Your task to perform on an android device: Open Google Maps Image 0: 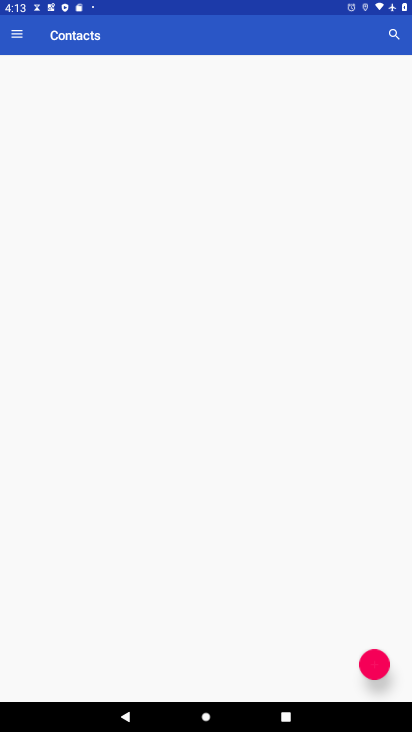
Step 0: press back button
Your task to perform on an android device: Open Google Maps Image 1: 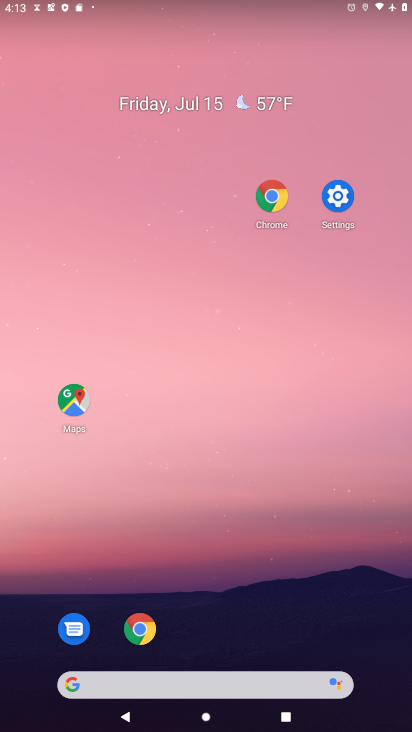
Step 1: press home button
Your task to perform on an android device: Open Google Maps Image 2: 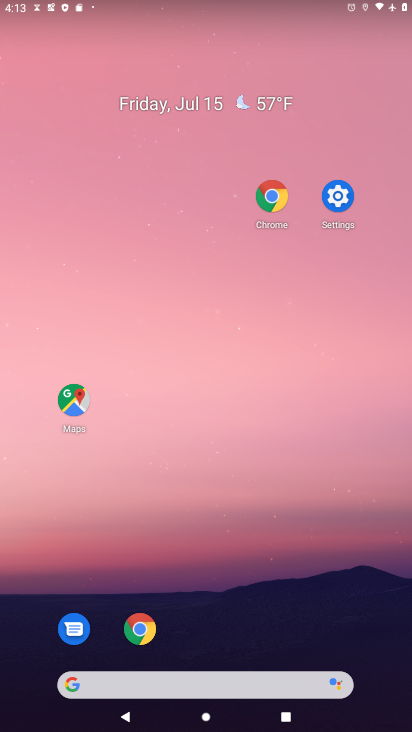
Step 2: drag from (153, 580) to (93, 126)
Your task to perform on an android device: Open Google Maps Image 3: 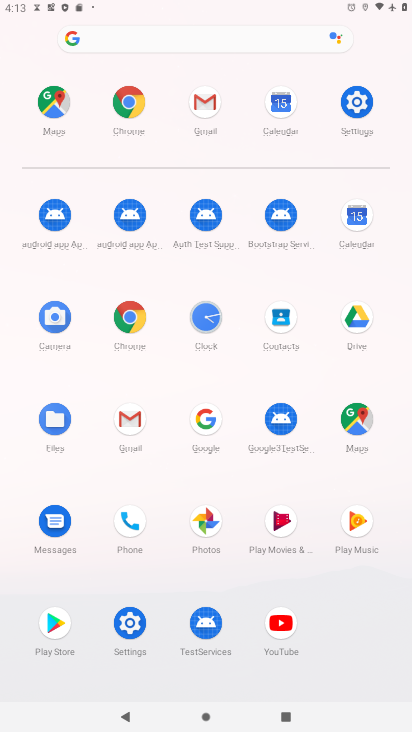
Step 3: click (342, 421)
Your task to perform on an android device: Open Google Maps Image 4: 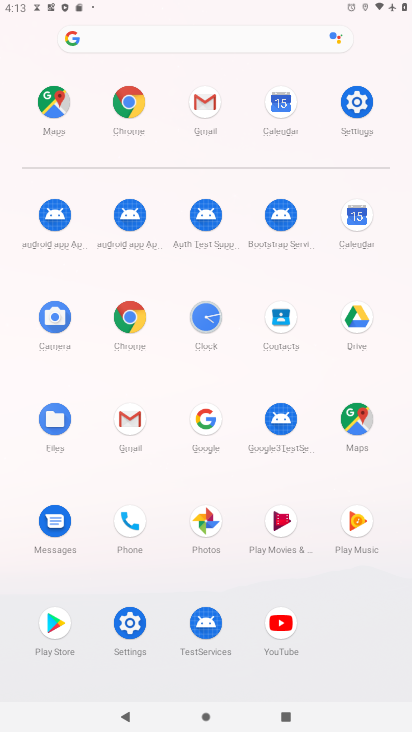
Step 4: click (350, 419)
Your task to perform on an android device: Open Google Maps Image 5: 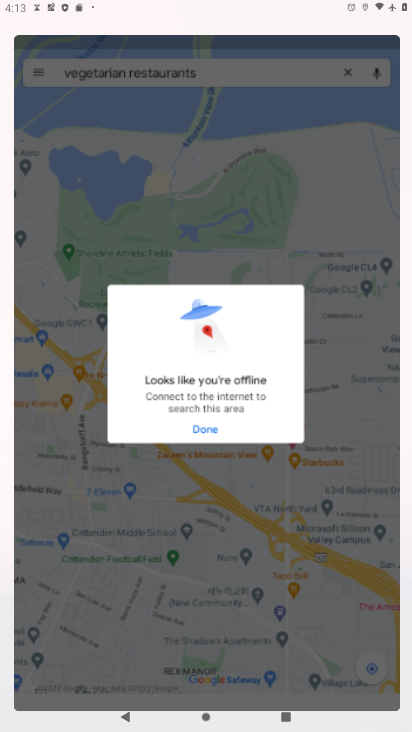
Step 5: click (353, 420)
Your task to perform on an android device: Open Google Maps Image 6: 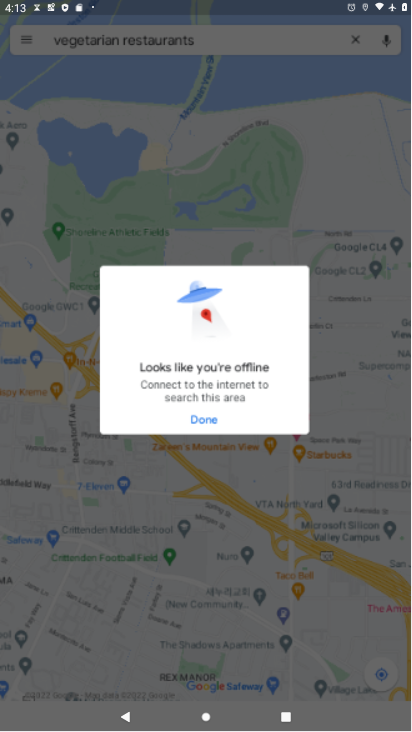
Step 6: click (356, 420)
Your task to perform on an android device: Open Google Maps Image 7: 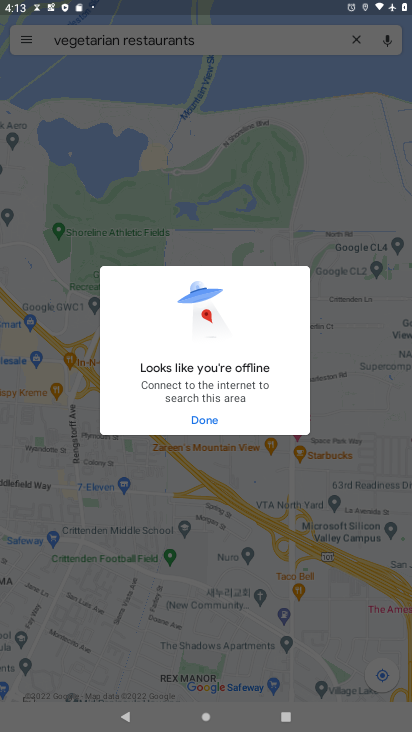
Step 7: click (218, 215)
Your task to perform on an android device: Open Google Maps Image 8: 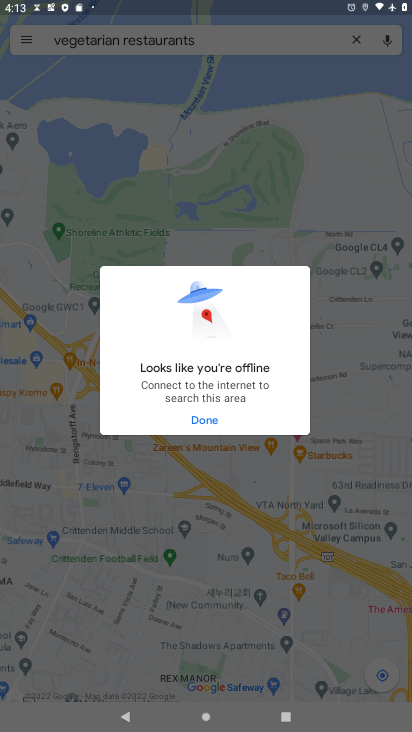
Step 8: task complete